Your task to perform on an android device: add a contact in the contacts app Image 0: 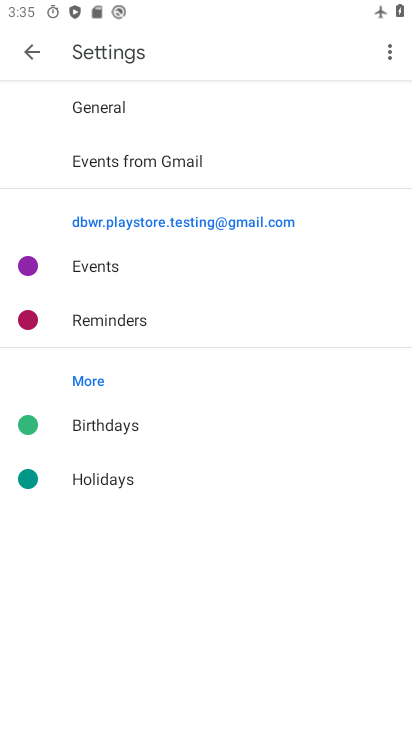
Step 0: press home button
Your task to perform on an android device: add a contact in the contacts app Image 1: 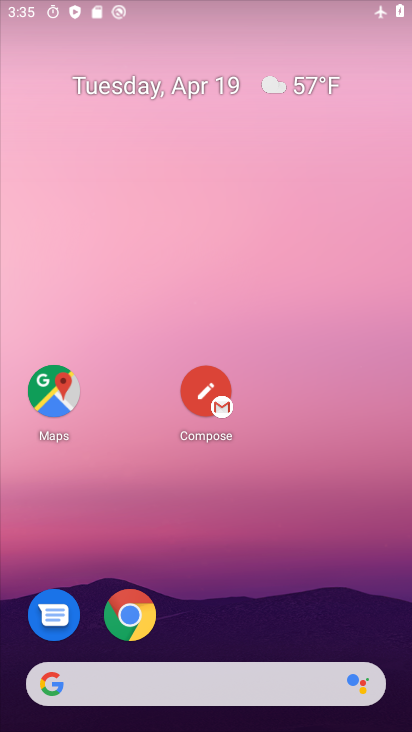
Step 1: drag from (247, 695) to (283, 101)
Your task to perform on an android device: add a contact in the contacts app Image 2: 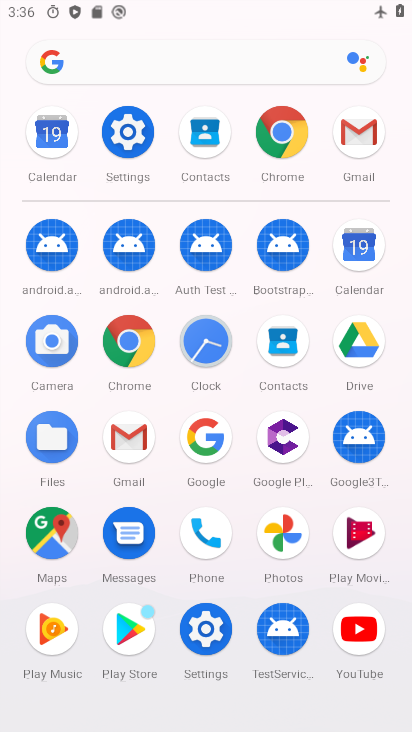
Step 2: click (290, 355)
Your task to perform on an android device: add a contact in the contacts app Image 3: 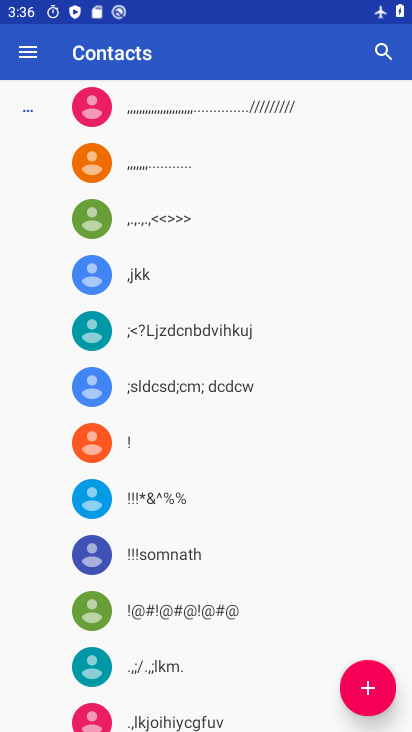
Step 3: click (373, 685)
Your task to perform on an android device: add a contact in the contacts app Image 4: 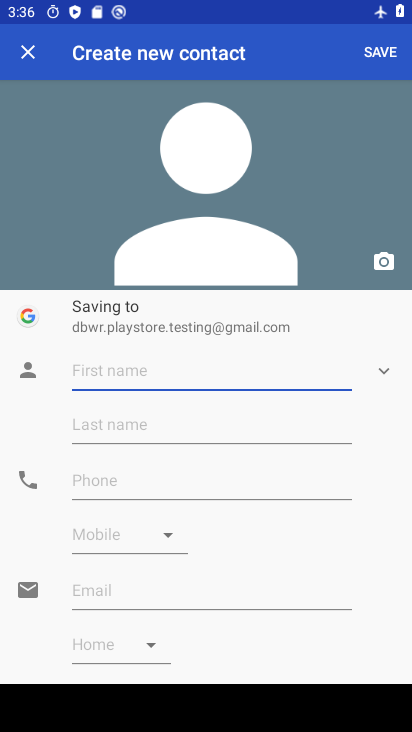
Step 4: click (217, 384)
Your task to perform on an android device: add a contact in the contacts app Image 5: 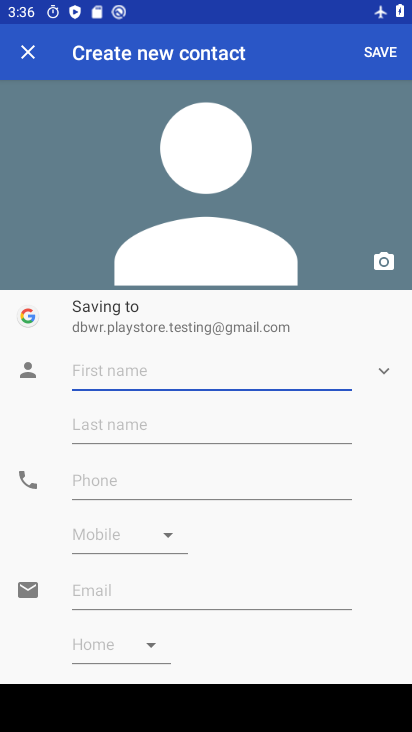
Step 5: type "gjfjfhfjfjffj"
Your task to perform on an android device: add a contact in the contacts app Image 6: 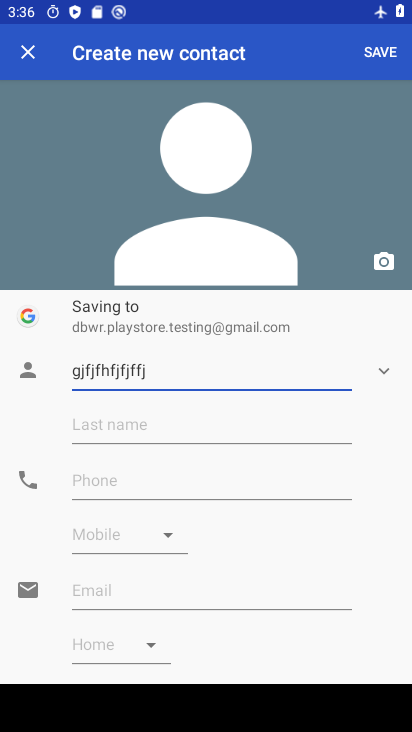
Step 6: click (244, 468)
Your task to perform on an android device: add a contact in the contacts app Image 7: 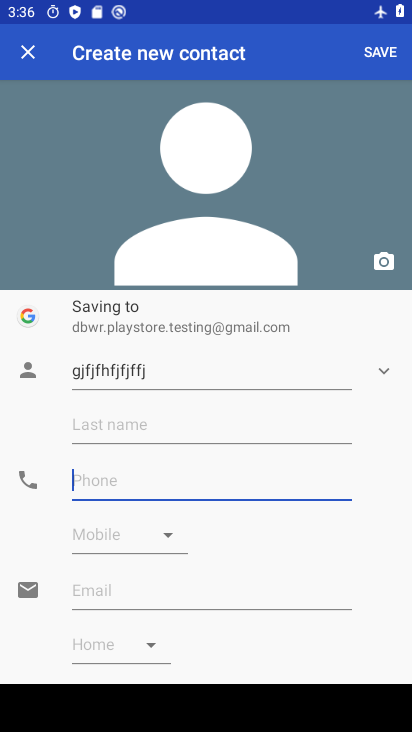
Step 7: type "686678799"
Your task to perform on an android device: add a contact in the contacts app Image 8: 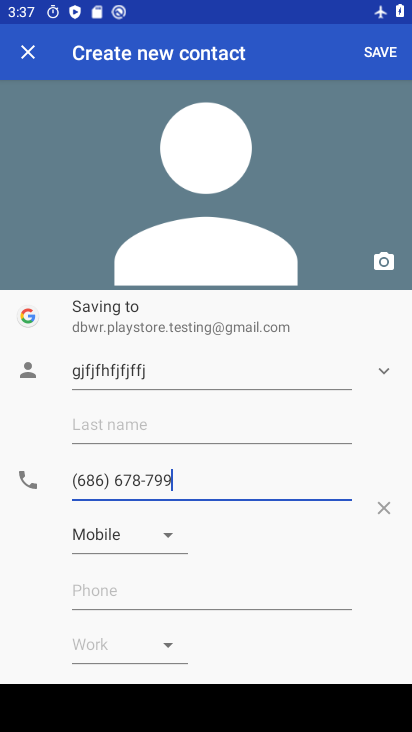
Step 8: click (375, 55)
Your task to perform on an android device: add a contact in the contacts app Image 9: 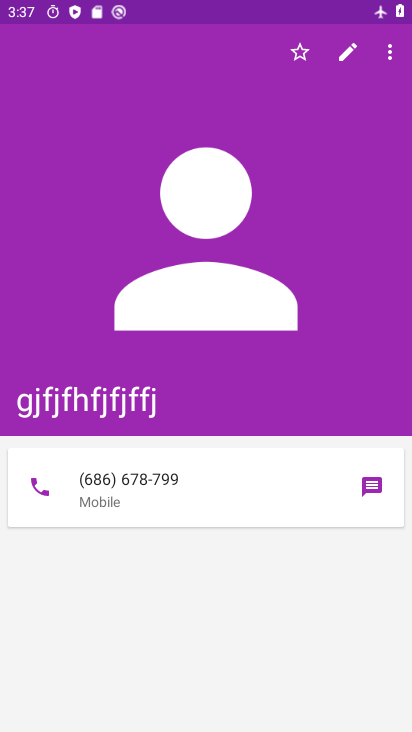
Step 9: task complete